Your task to perform on an android device: Go to Google maps Image 0: 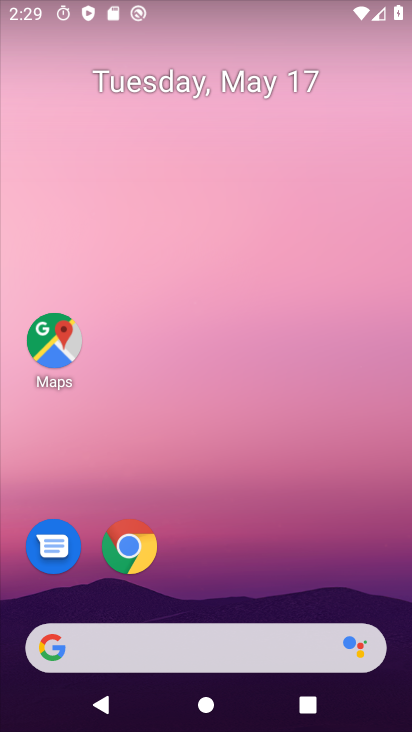
Step 0: drag from (201, 532) to (141, 168)
Your task to perform on an android device: Go to Google maps Image 1: 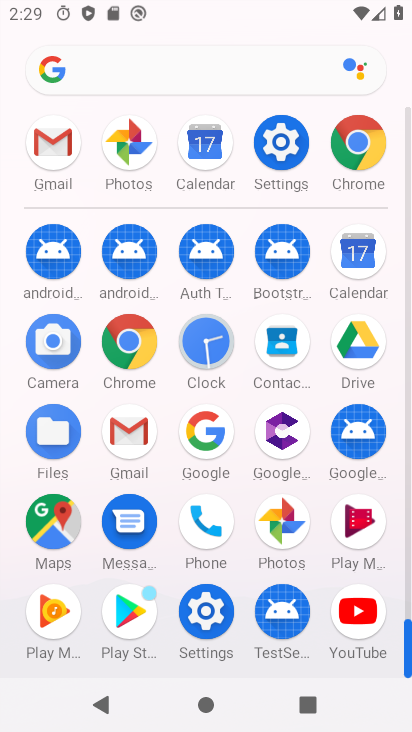
Step 1: click (65, 535)
Your task to perform on an android device: Go to Google maps Image 2: 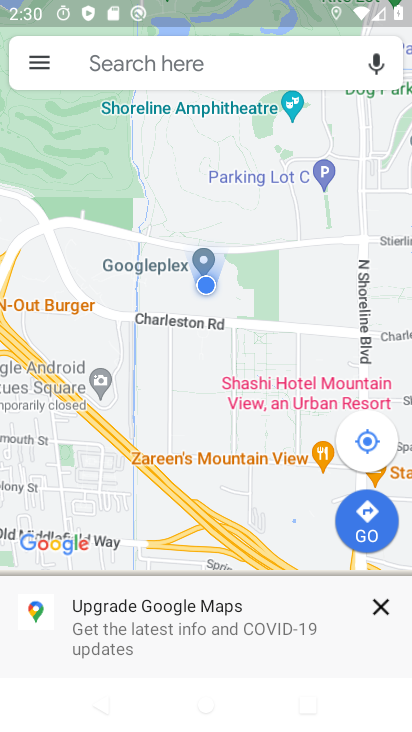
Step 2: task complete